Your task to perform on an android device: open sync settings in chrome Image 0: 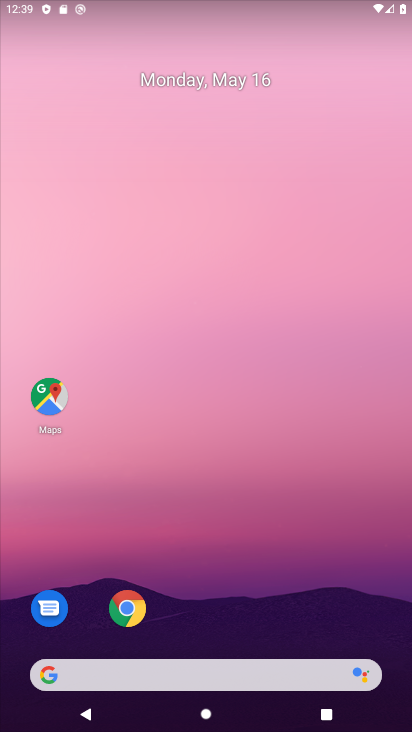
Step 0: click (132, 612)
Your task to perform on an android device: open sync settings in chrome Image 1: 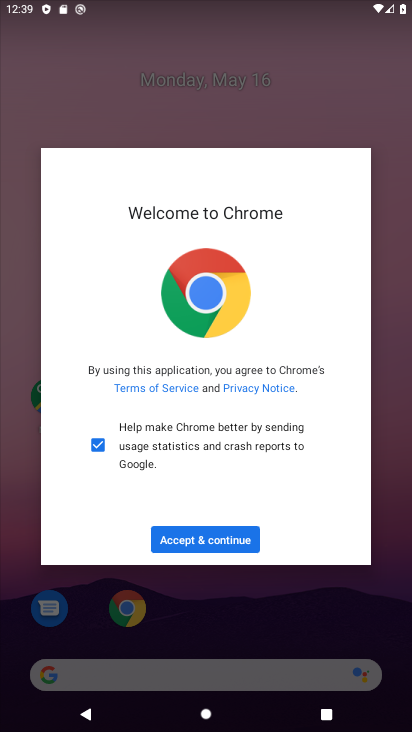
Step 1: click (203, 549)
Your task to perform on an android device: open sync settings in chrome Image 2: 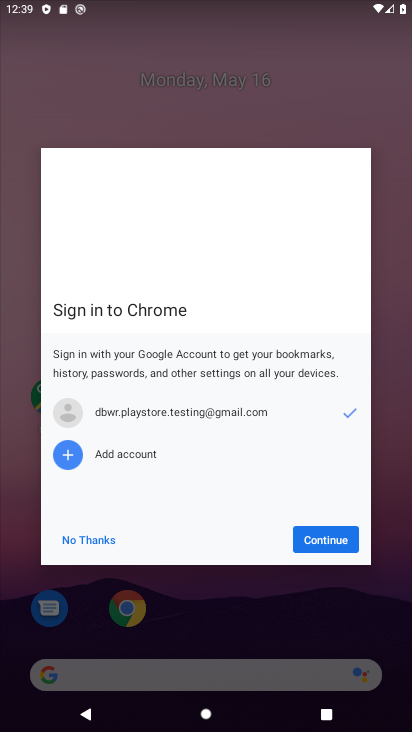
Step 2: click (310, 546)
Your task to perform on an android device: open sync settings in chrome Image 3: 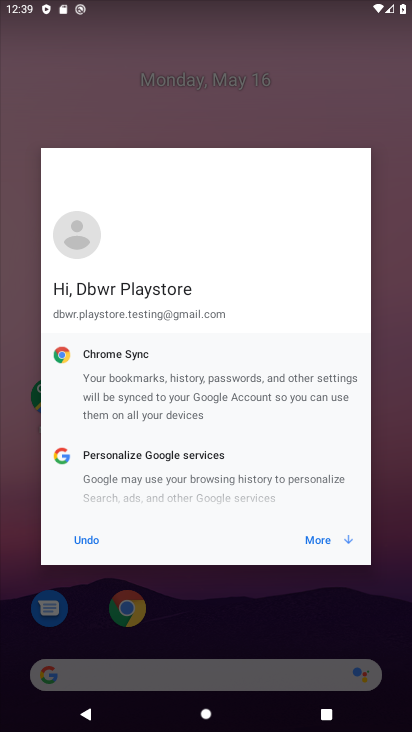
Step 3: click (310, 546)
Your task to perform on an android device: open sync settings in chrome Image 4: 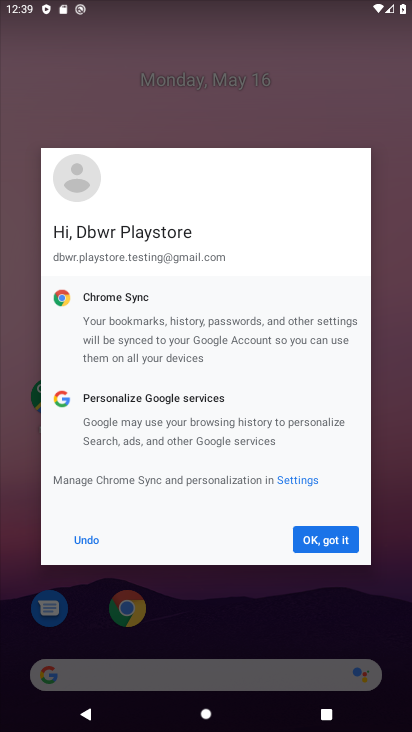
Step 4: click (310, 546)
Your task to perform on an android device: open sync settings in chrome Image 5: 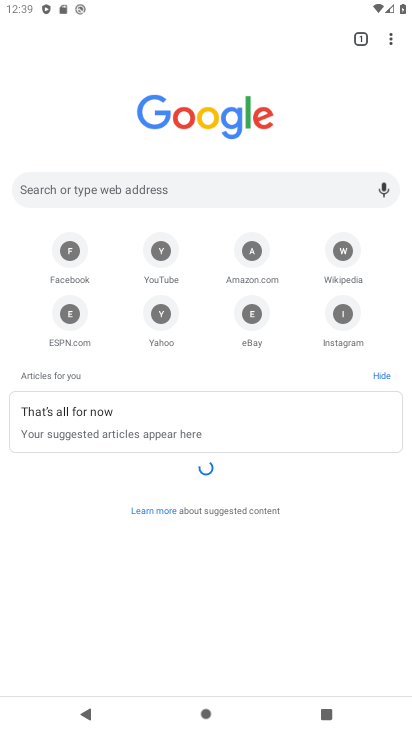
Step 5: click (390, 41)
Your task to perform on an android device: open sync settings in chrome Image 6: 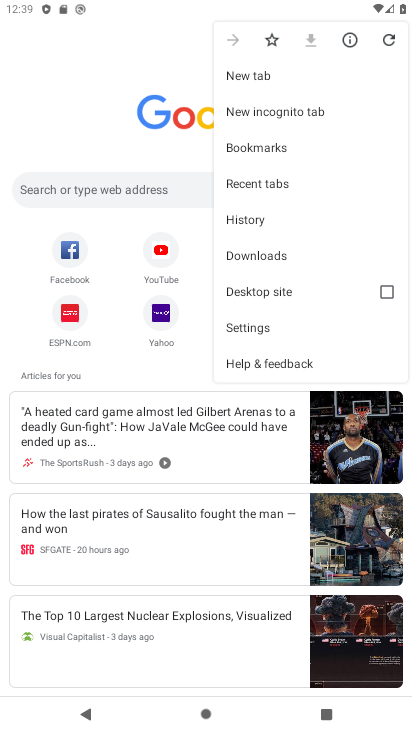
Step 6: click (253, 329)
Your task to perform on an android device: open sync settings in chrome Image 7: 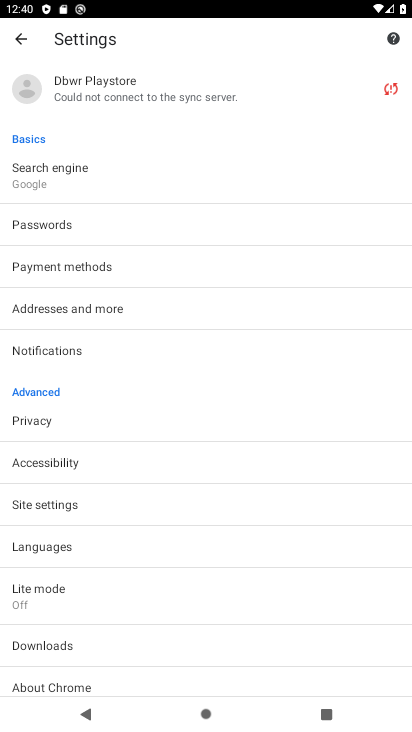
Step 7: click (83, 510)
Your task to perform on an android device: open sync settings in chrome Image 8: 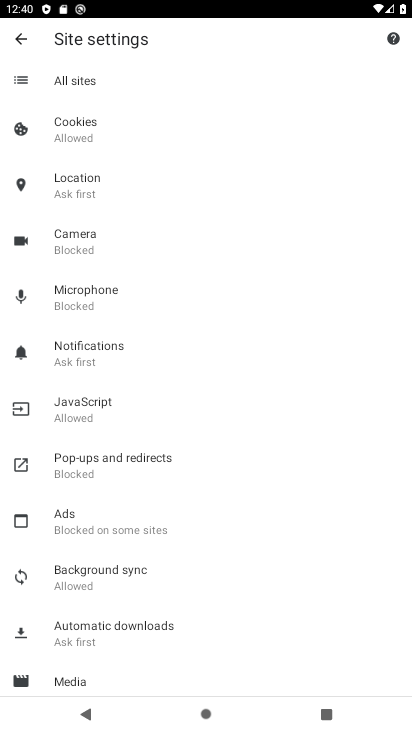
Step 8: click (117, 581)
Your task to perform on an android device: open sync settings in chrome Image 9: 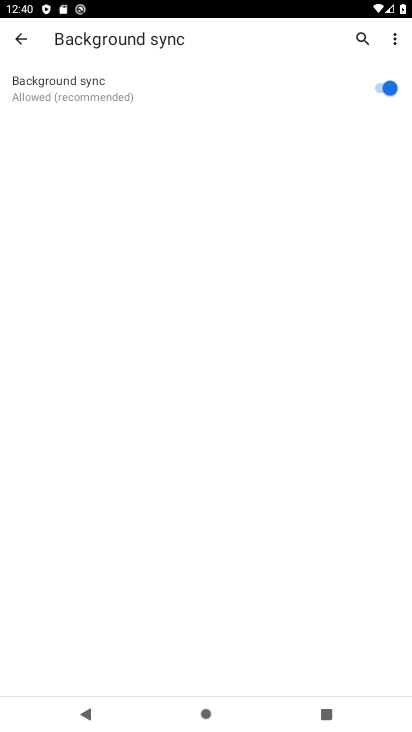
Step 9: task complete